Your task to perform on an android device: turn off smart reply in the gmail app Image 0: 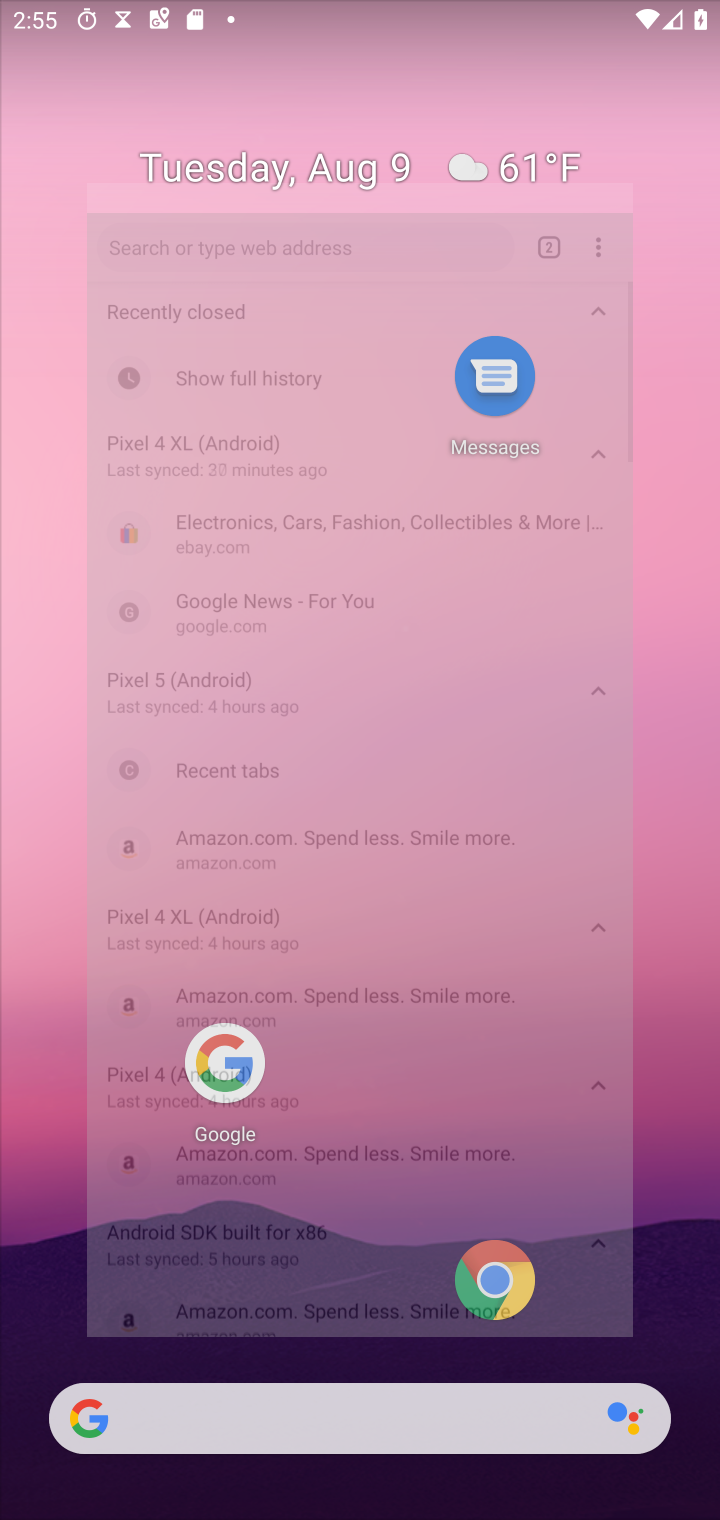
Step 0: press home button
Your task to perform on an android device: turn off smart reply in the gmail app Image 1: 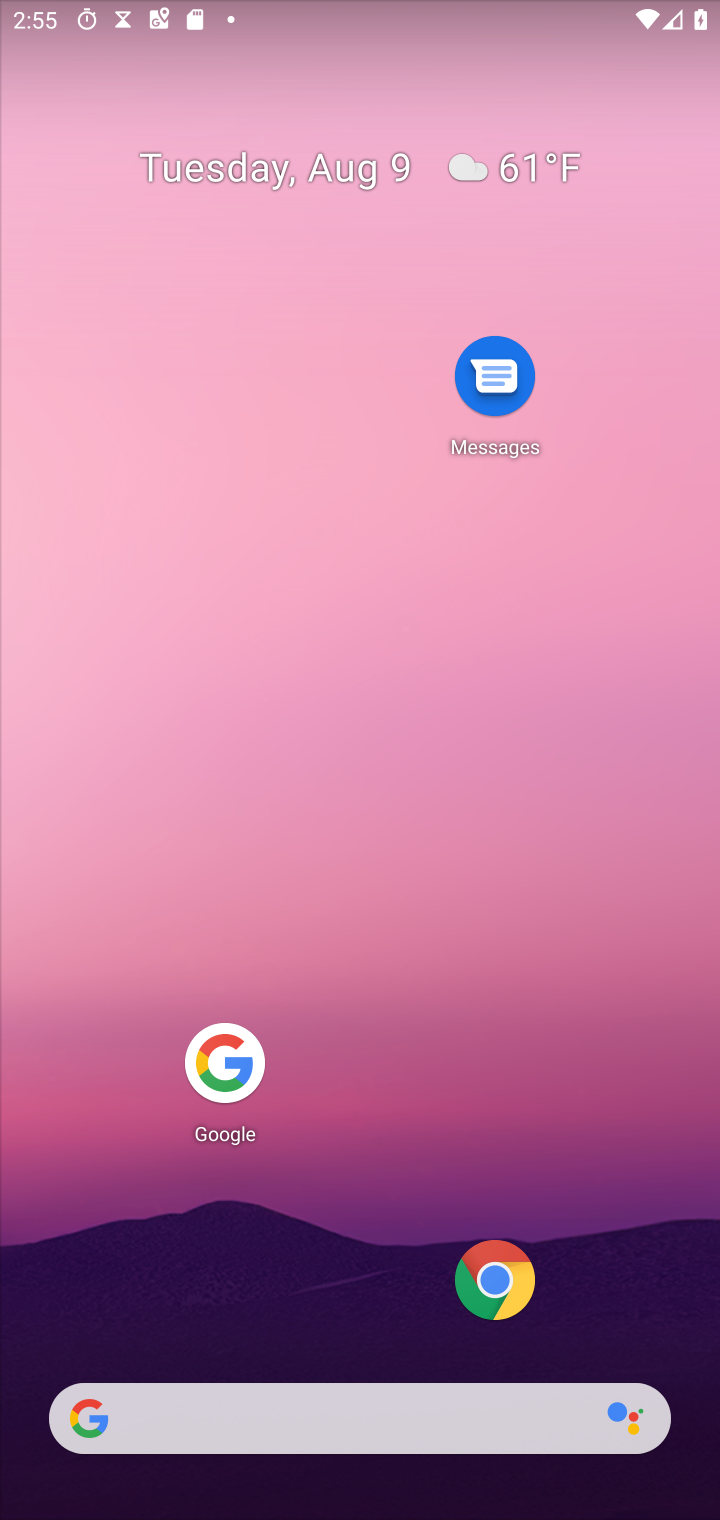
Step 1: drag from (311, 1412) to (365, 365)
Your task to perform on an android device: turn off smart reply in the gmail app Image 2: 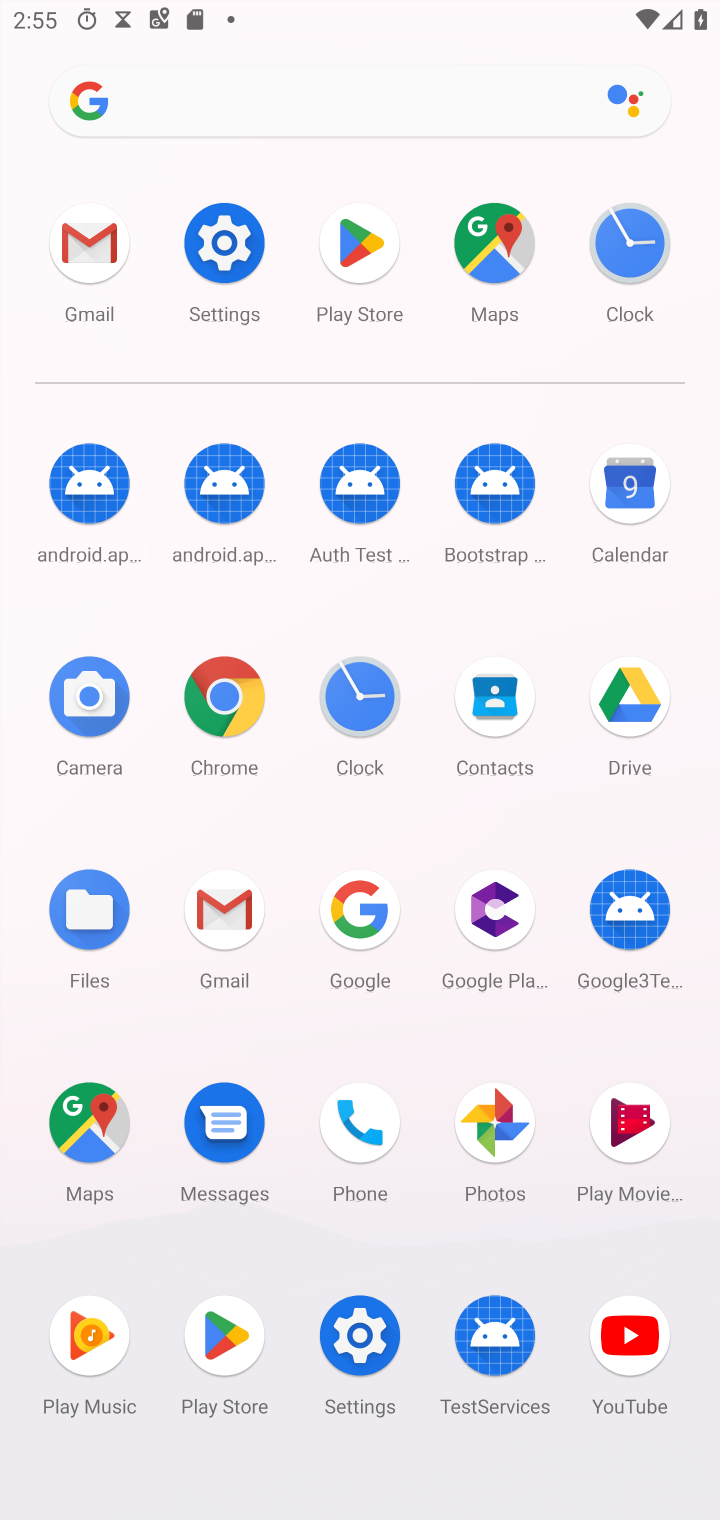
Step 2: click (75, 235)
Your task to perform on an android device: turn off smart reply in the gmail app Image 3: 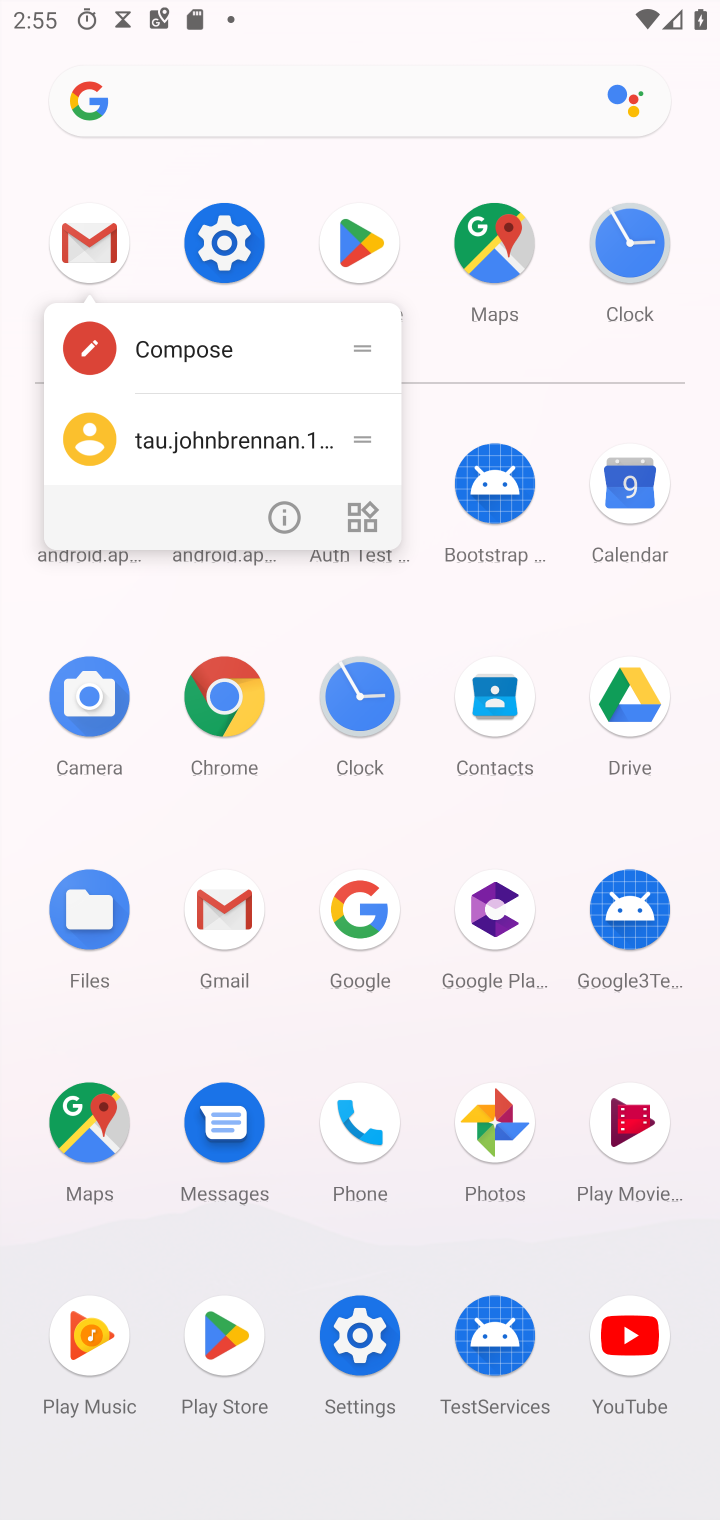
Step 3: click (75, 235)
Your task to perform on an android device: turn off smart reply in the gmail app Image 4: 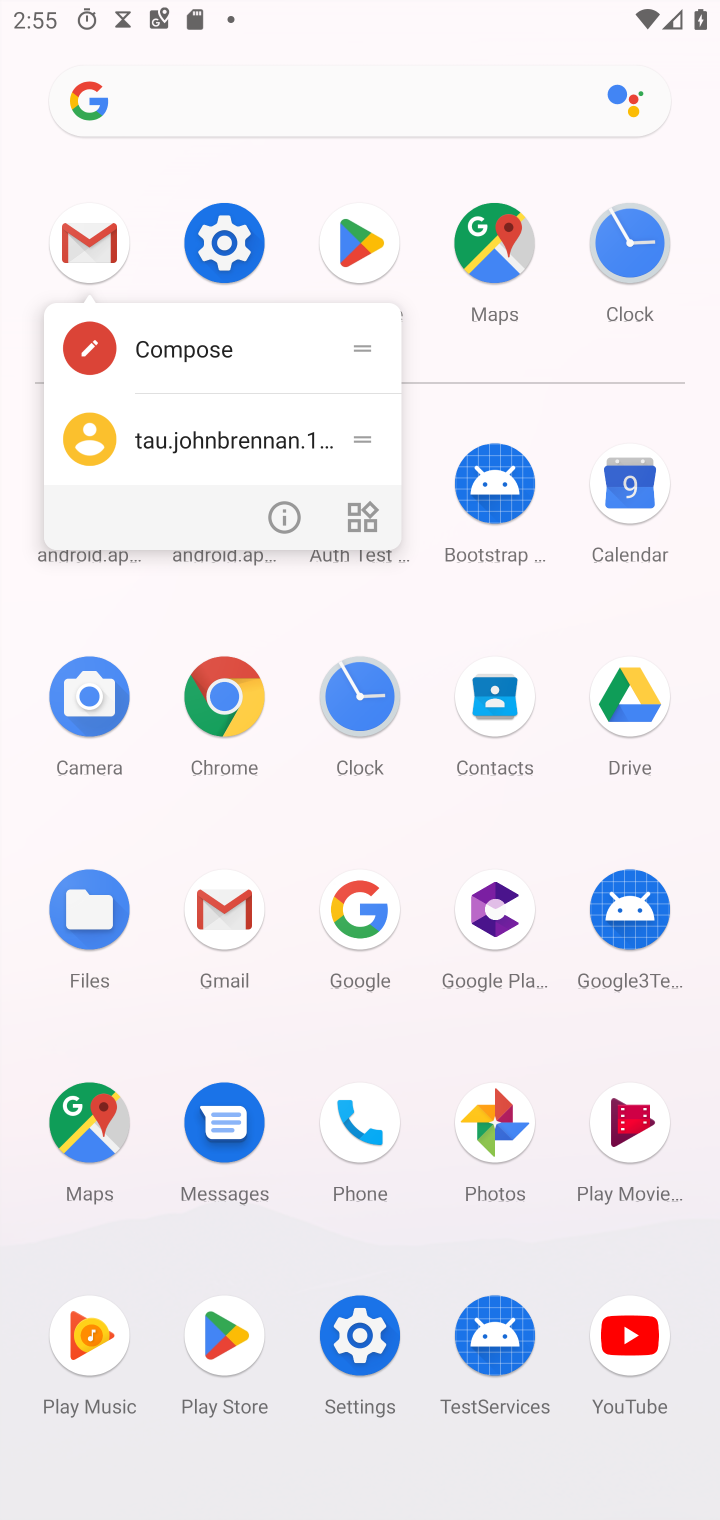
Step 4: click (75, 239)
Your task to perform on an android device: turn off smart reply in the gmail app Image 5: 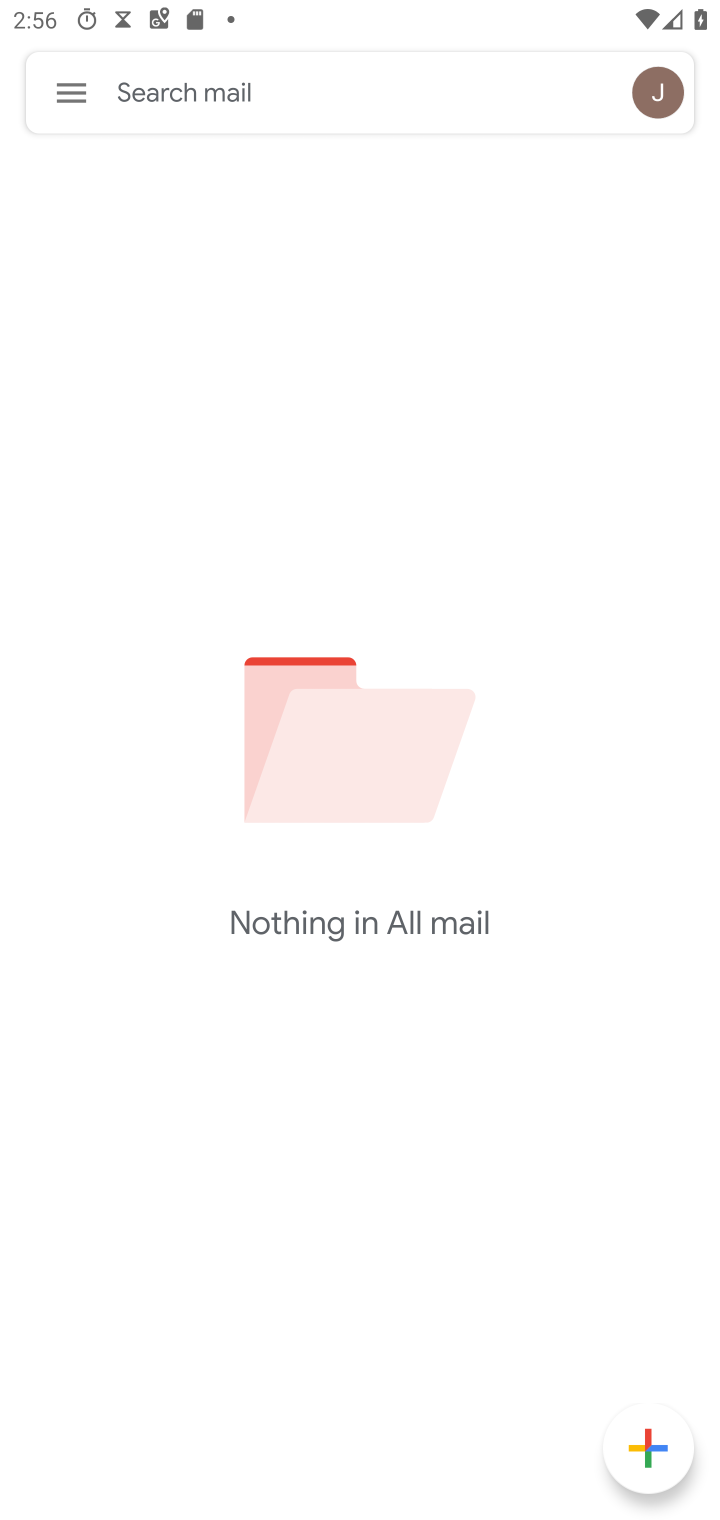
Step 5: click (65, 76)
Your task to perform on an android device: turn off smart reply in the gmail app Image 6: 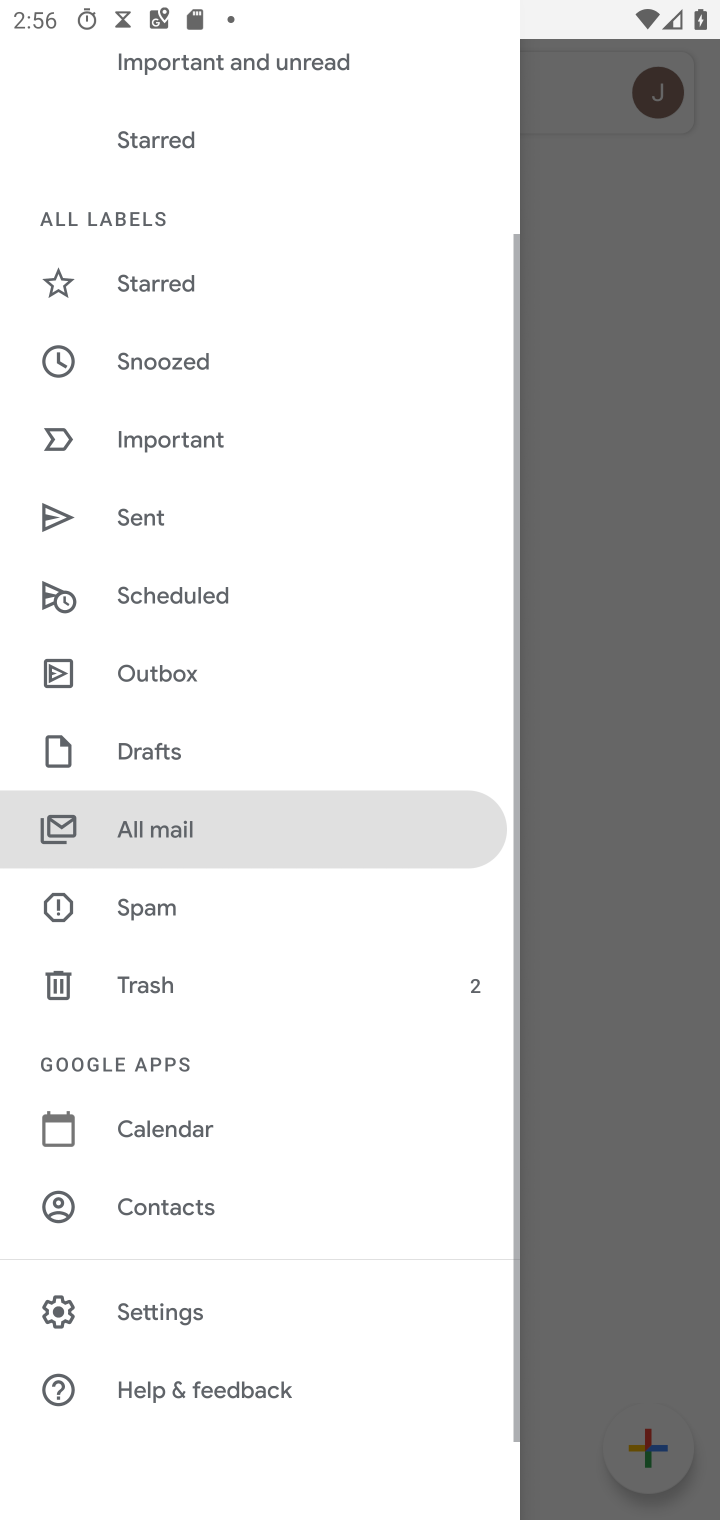
Step 6: drag from (307, 1099) to (416, 321)
Your task to perform on an android device: turn off smart reply in the gmail app Image 7: 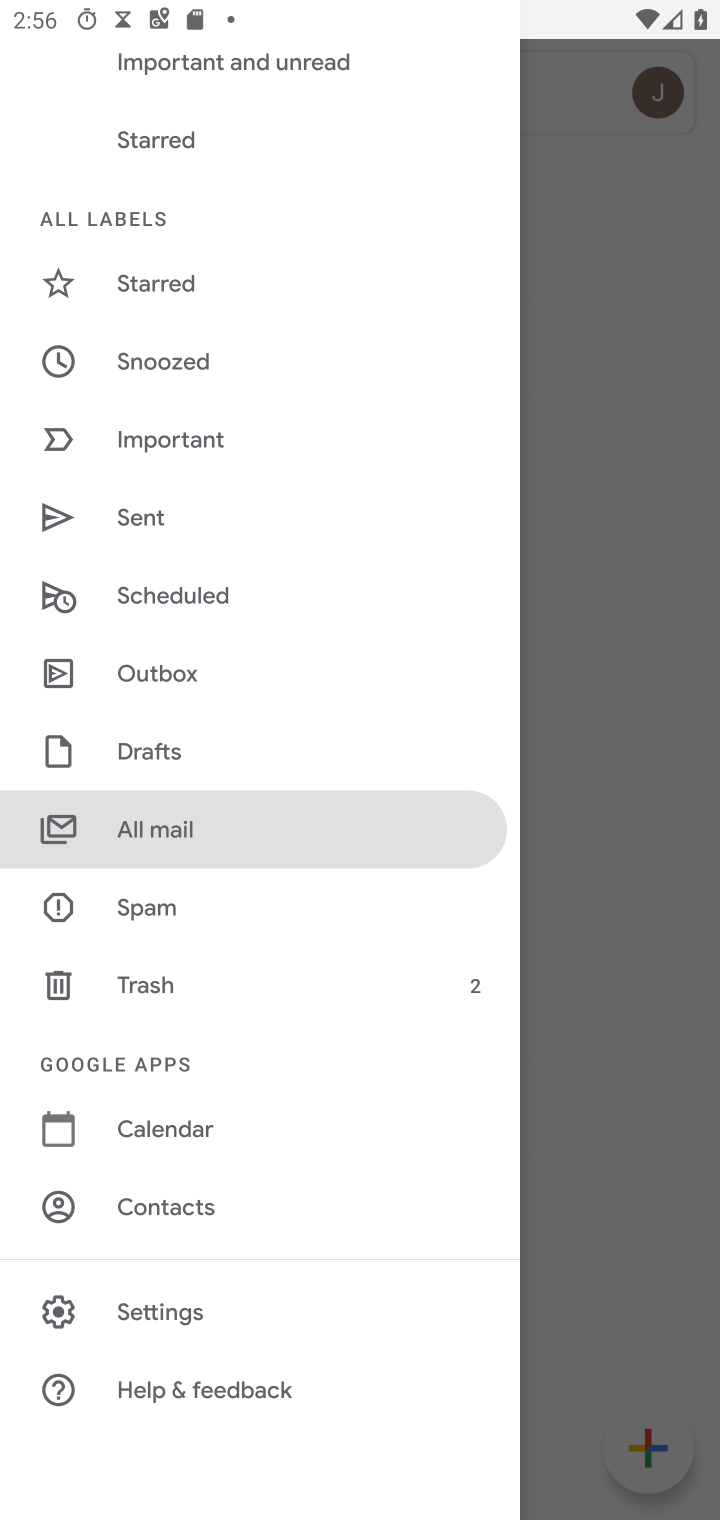
Step 7: click (193, 1306)
Your task to perform on an android device: turn off smart reply in the gmail app Image 8: 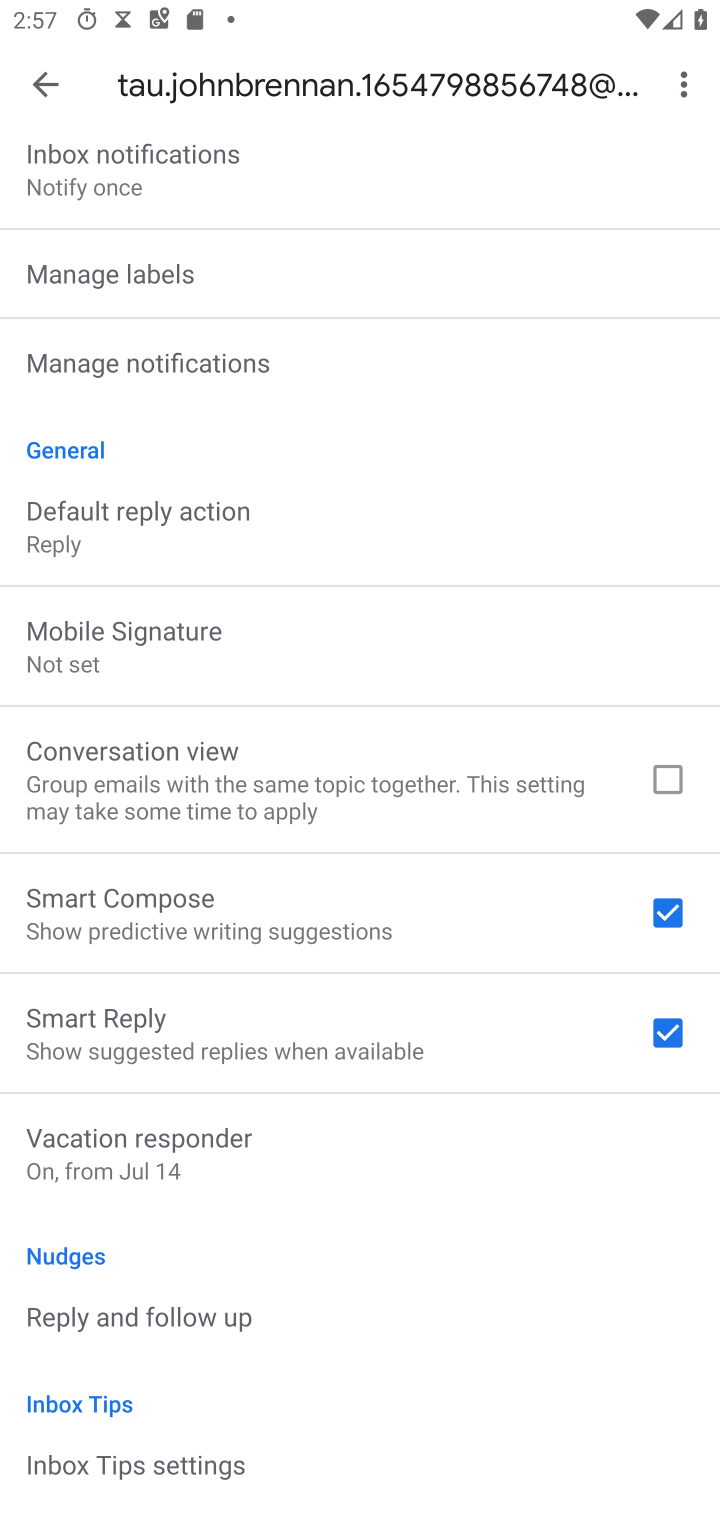
Step 8: click (659, 1015)
Your task to perform on an android device: turn off smart reply in the gmail app Image 9: 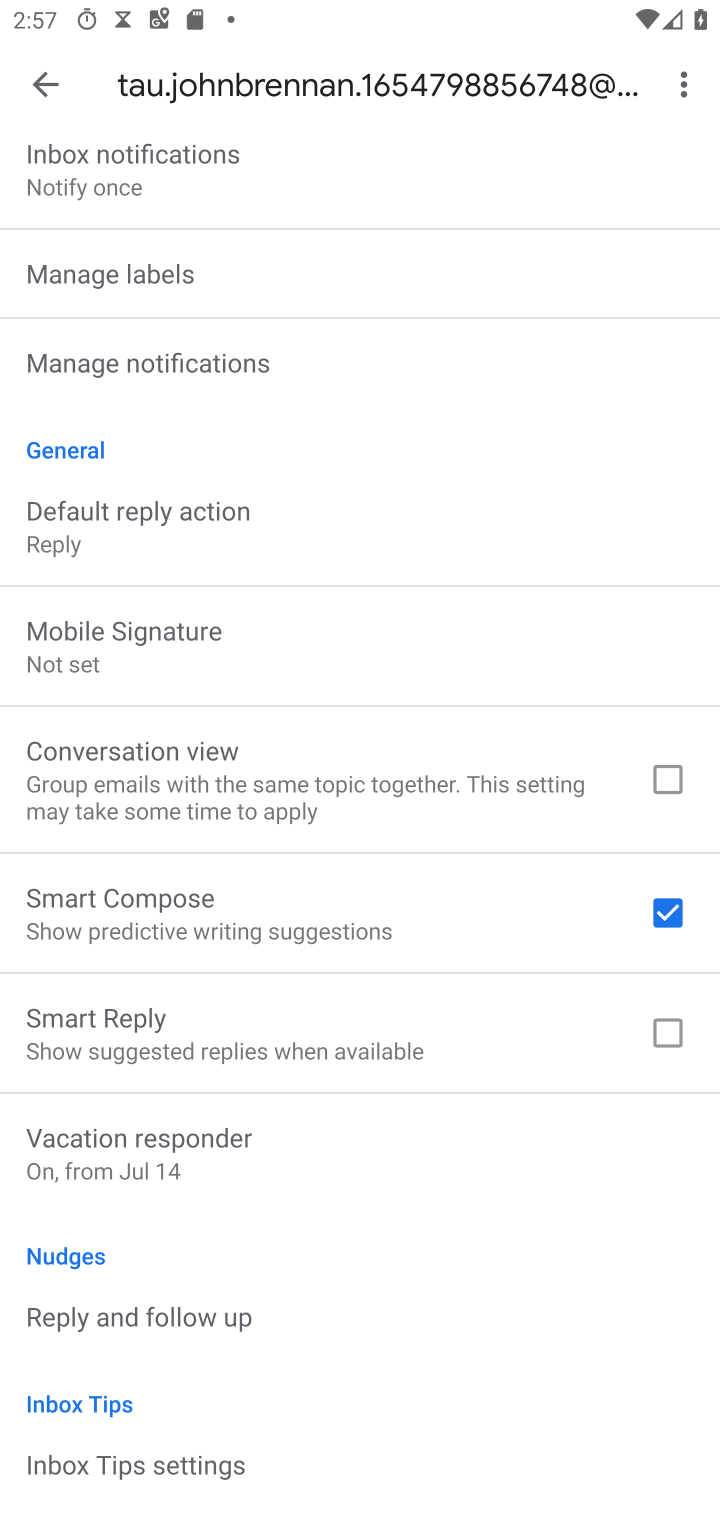
Step 9: task complete